Your task to perform on an android device: open app "Speedtest by Ookla" (install if not already installed) and enter user name: "hyena@outlook.com" and password: "terminators" Image 0: 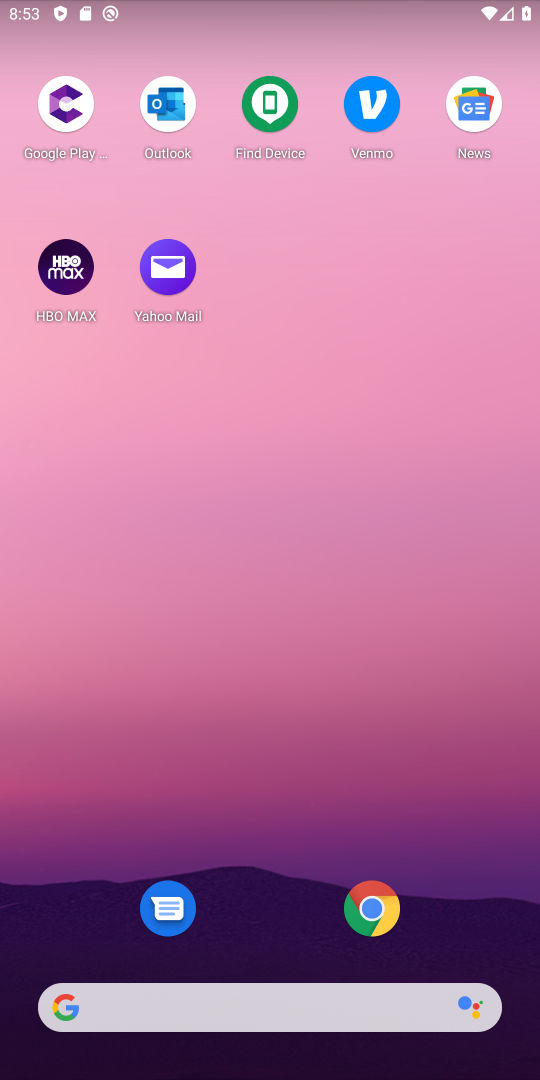
Step 0: drag from (204, 701) to (491, 29)
Your task to perform on an android device: open app "Speedtest by Ookla" (install if not already installed) and enter user name: "hyena@outlook.com" and password: "terminators" Image 1: 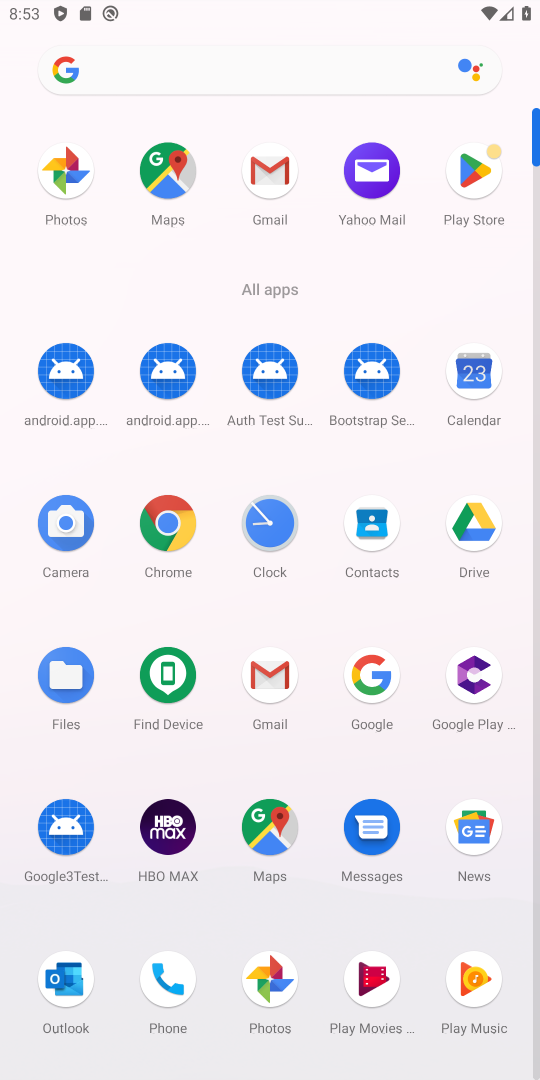
Step 1: click (472, 187)
Your task to perform on an android device: open app "Speedtest by Ookla" (install if not already installed) and enter user name: "hyena@outlook.com" and password: "terminators" Image 2: 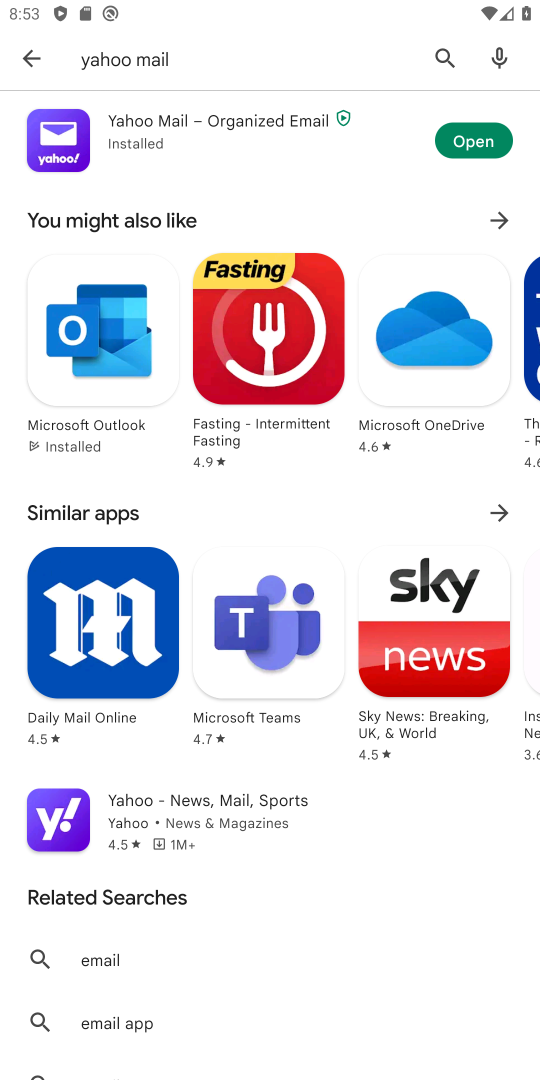
Step 2: click (274, 49)
Your task to perform on an android device: open app "Speedtest by Ookla" (install if not already installed) and enter user name: "hyena@outlook.com" and password: "terminators" Image 3: 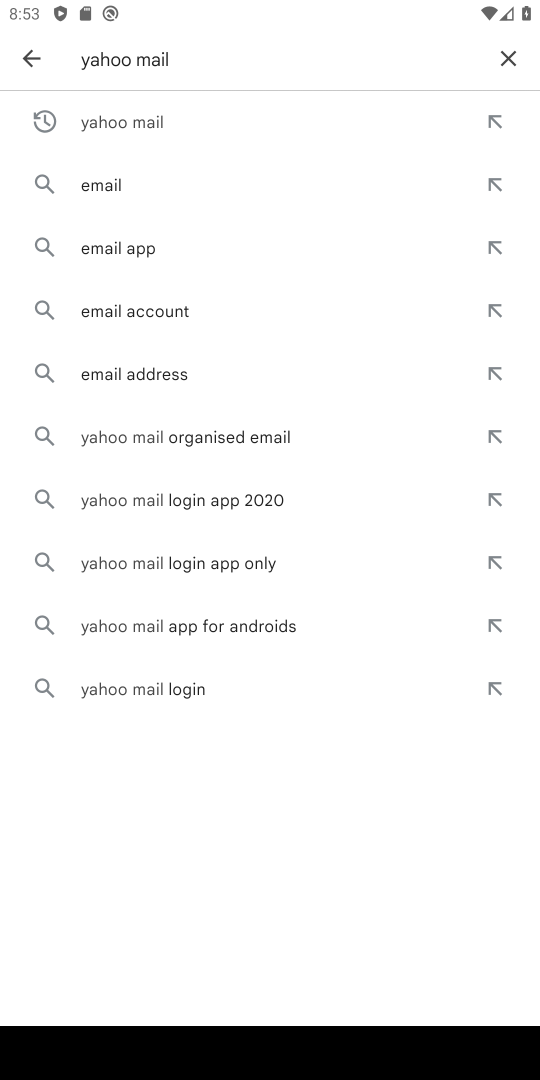
Step 3: click (499, 41)
Your task to perform on an android device: open app "Speedtest by Ookla" (install if not already installed) and enter user name: "hyena@outlook.com" and password: "terminators" Image 4: 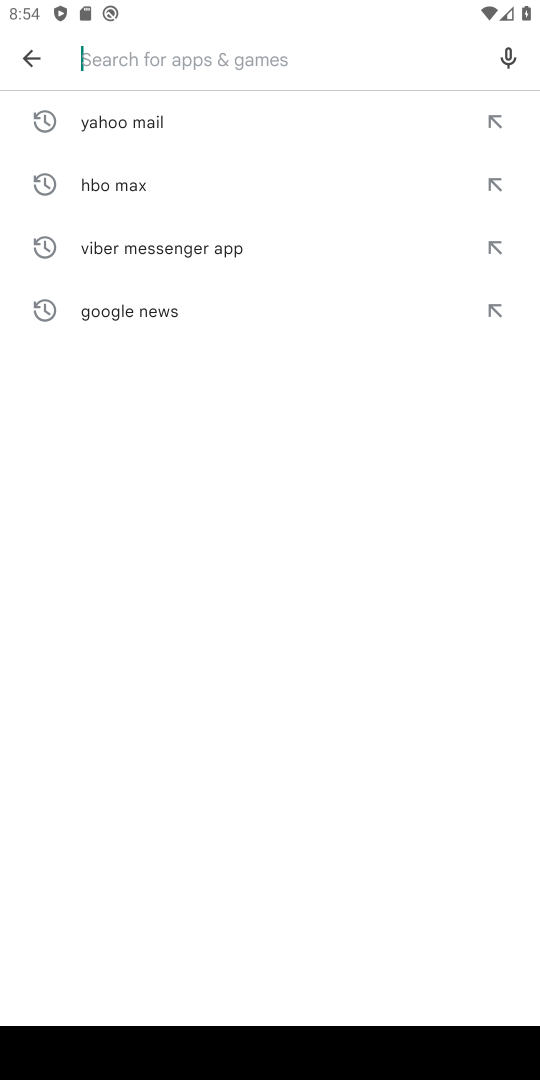
Step 4: type "speed resr by Ool;a"
Your task to perform on an android device: open app "Speedtest by Ookla" (install if not already installed) and enter user name: "hyena@outlook.com" and password: "terminators" Image 5: 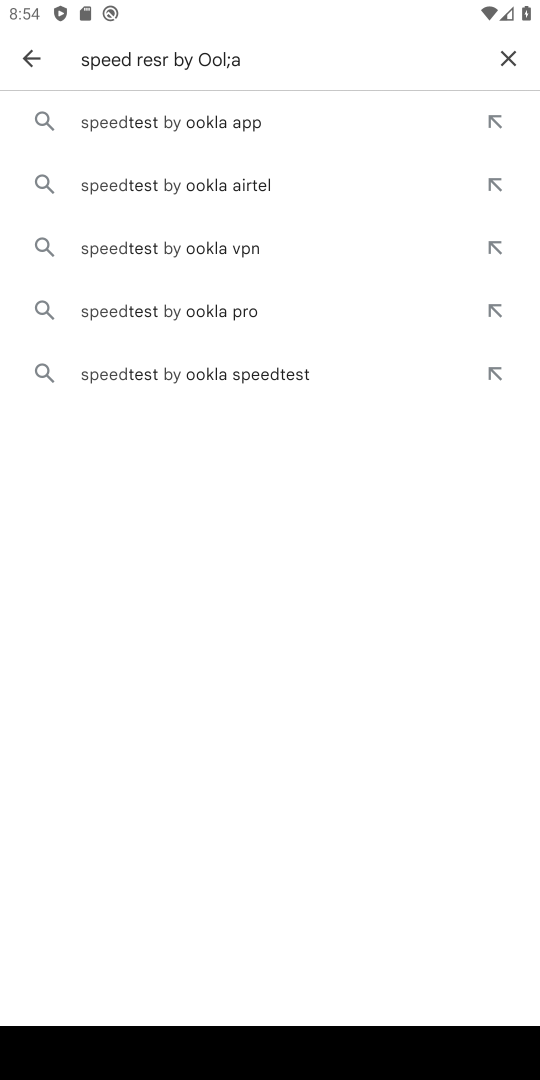
Step 5: click (160, 123)
Your task to perform on an android device: open app "Speedtest by Ookla" (install if not already installed) and enter user name: "hyena@outlook.com" and password: "terminators" Image 6: 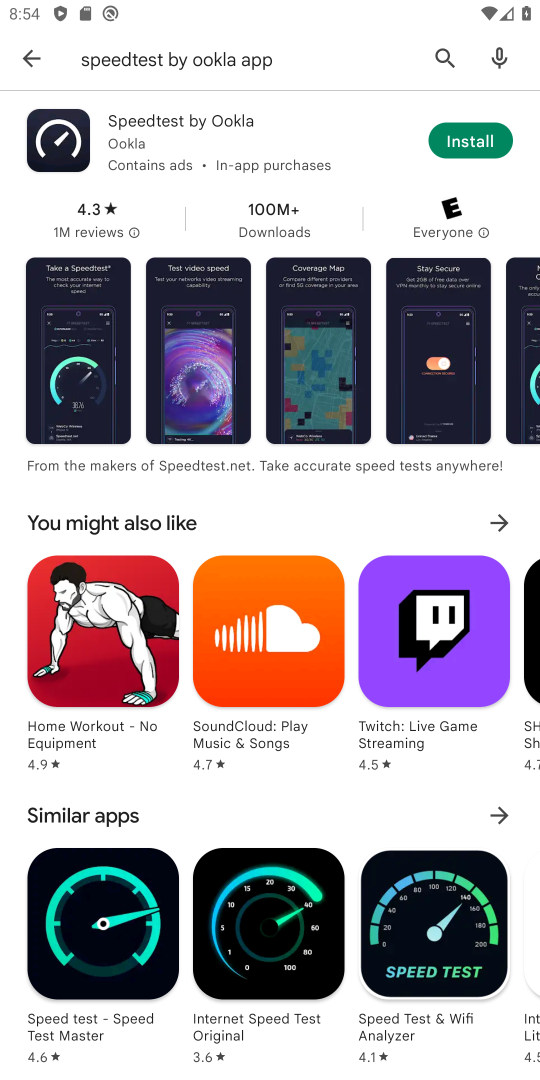
Step 6: click (464, 145)
Your task to perform on an android device: open app "Speedtest by Ookla" (install if not already installed) and enter user name: "hyena@outlook.com" and password: "terminators" Image 7: 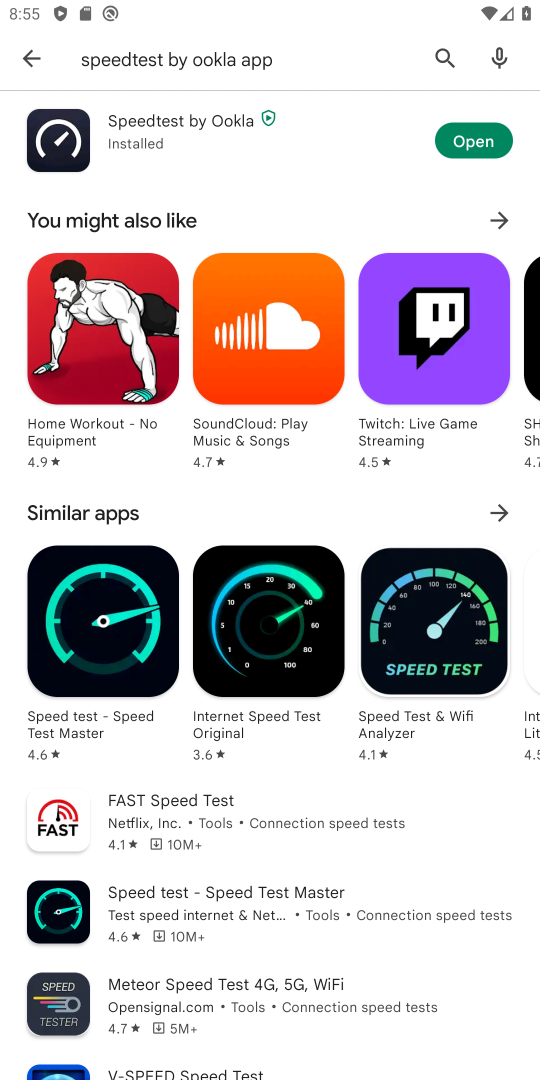
Step 7: click (479, 128)
Your task to perform on an android device: open app "Speedtest by Ookla" (install if not already installed) and enter user name: "hyena@outlook.com" and password: "terminators" Image 8: 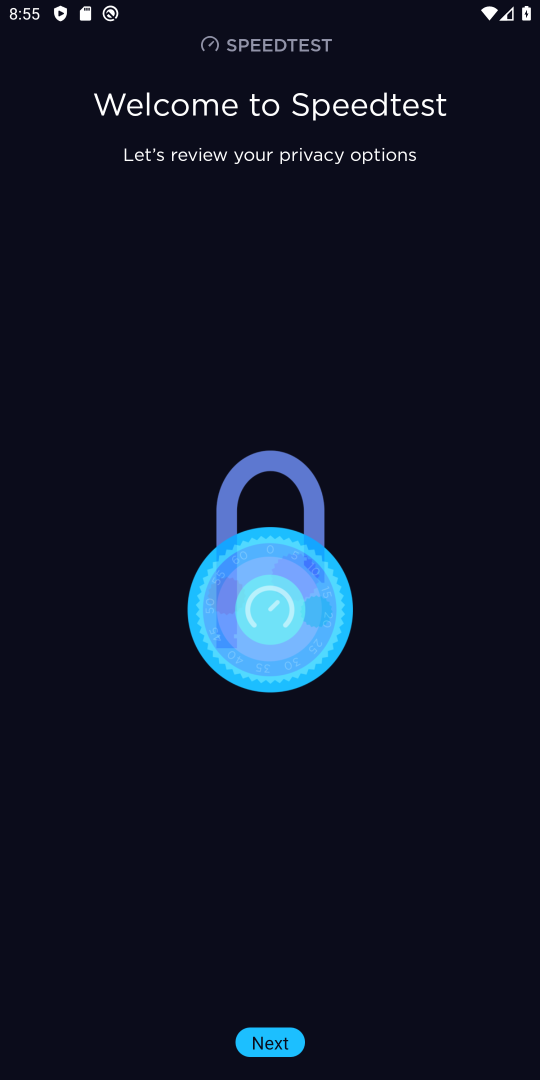
Step 8: click (270, 1046)
Your task to perform on an android device: open app "Speedtest by Ookla" (install if not already installed) and enter user name: "hyena@outlook.com" and password: "terminators" Image 9: 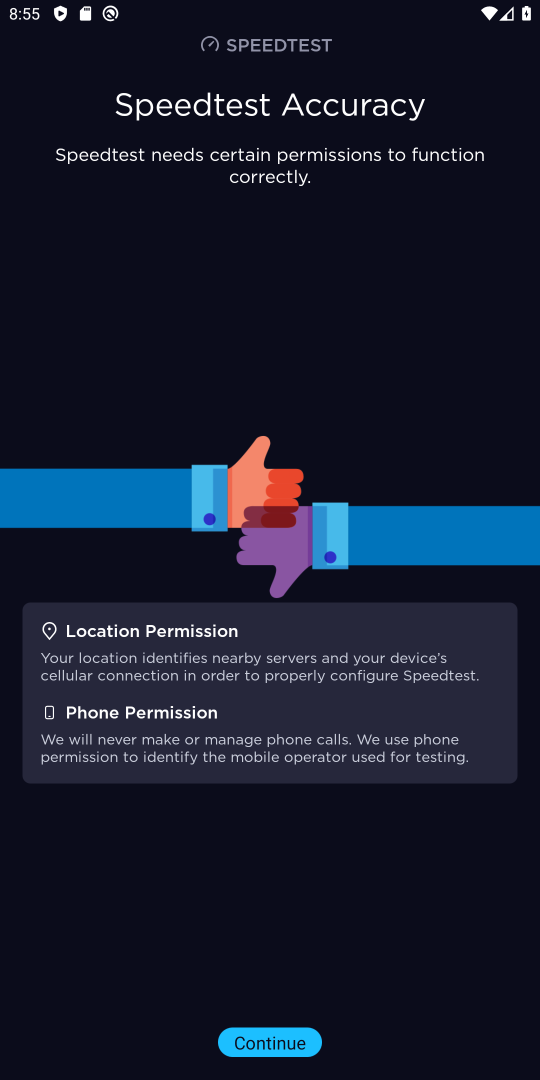
Step 9: click (270, 1046)
Your task to perform on an android device: open app "Speedtest by Ookla" (install if not already installed) and enter user name: "hyena@outlook.com" and password: "terminators" Image 10: 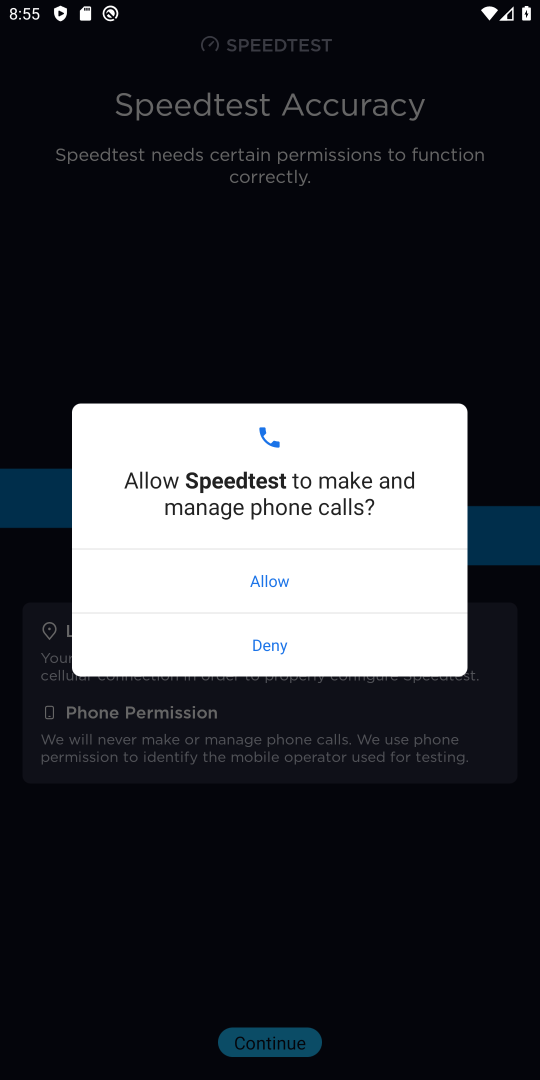
Step 10: click (280, 583)
Your task to perform on an android device: open app "Speedtest by Ookla" (install if not already installed) and enter user name: "hyena@outlook.com" and password: "terminators" Image 11: 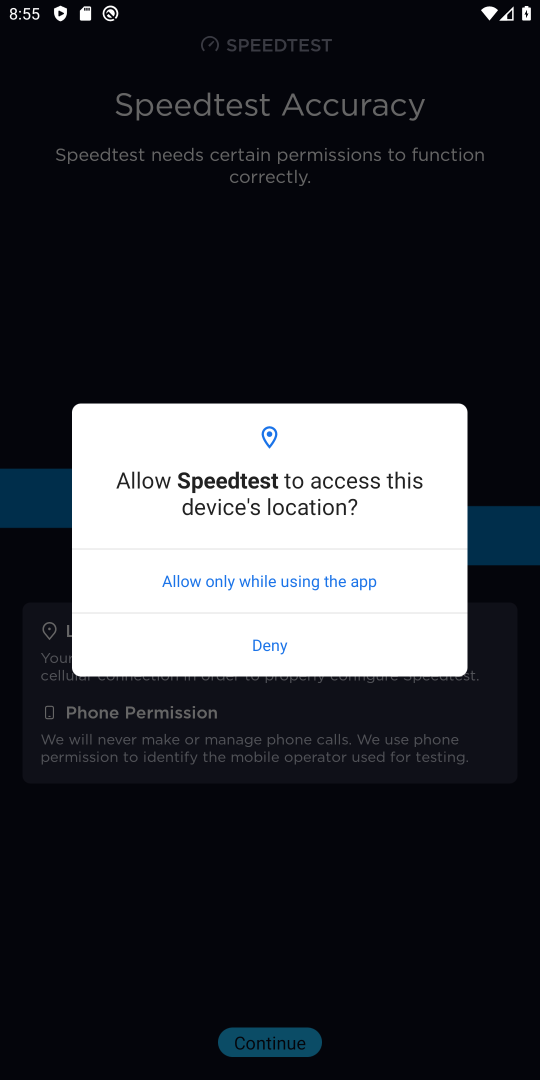
Step 11: click (280, 583)
Your task to perform on an android device: open app "Speedtest by Ookla" (install if not already installed) and enter user name: "hyena@outlook.com" and password: "terminators" Image 12: 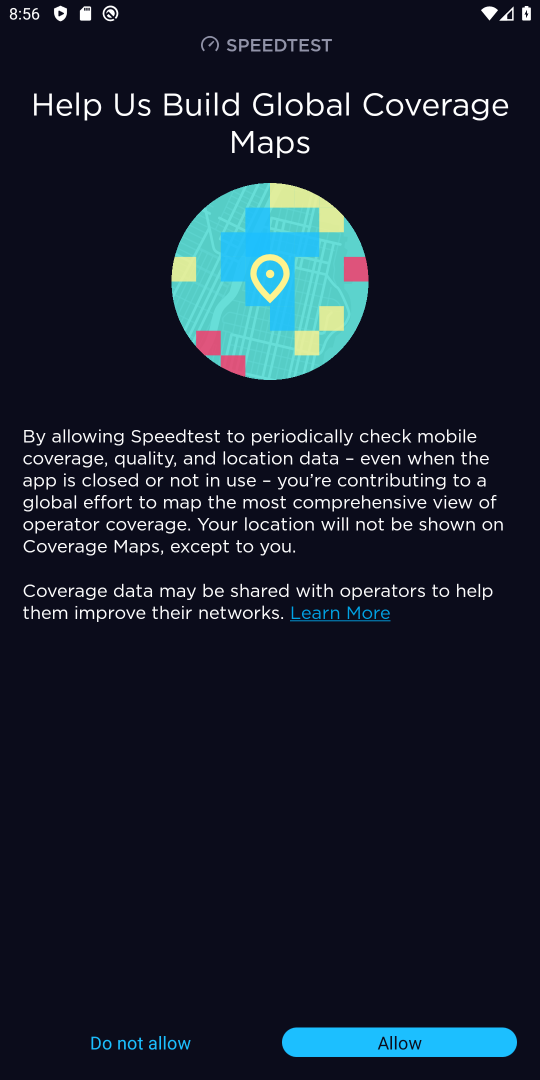
Step 12: click (316, 1046)
Your task to perform on an android device: open app "Speedtest by Ookla" (install if not already installed) and enter user name: "hyena@outlook.com" and password: "terminators" Image 13: 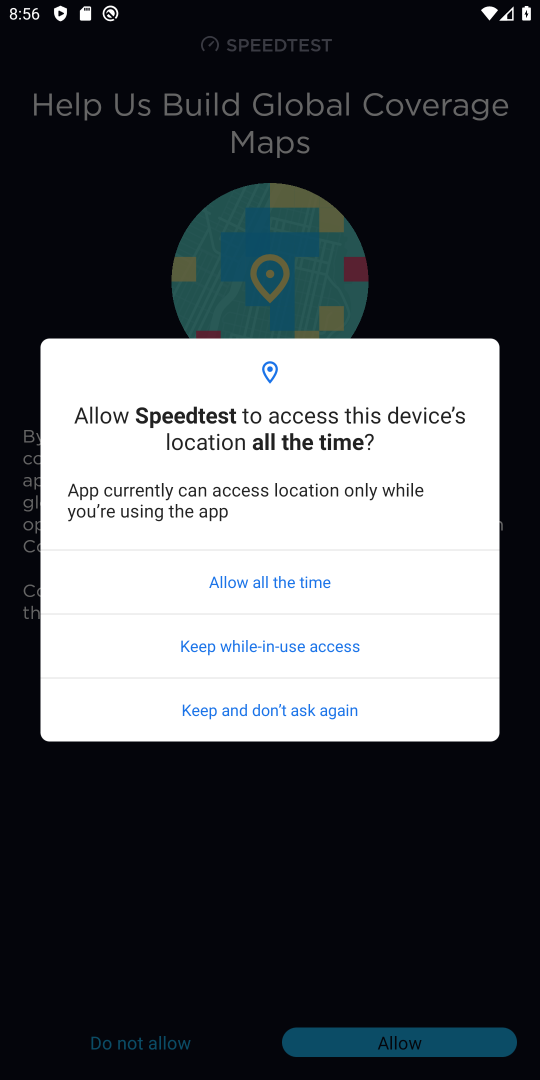
Step 13: click (314, 572)
Your task to perform on an android device: open app "Speedtest by Ookla" (install if not already installed) and enter user name: "hyena@outlook.com" and password: "terminators" Image 14: 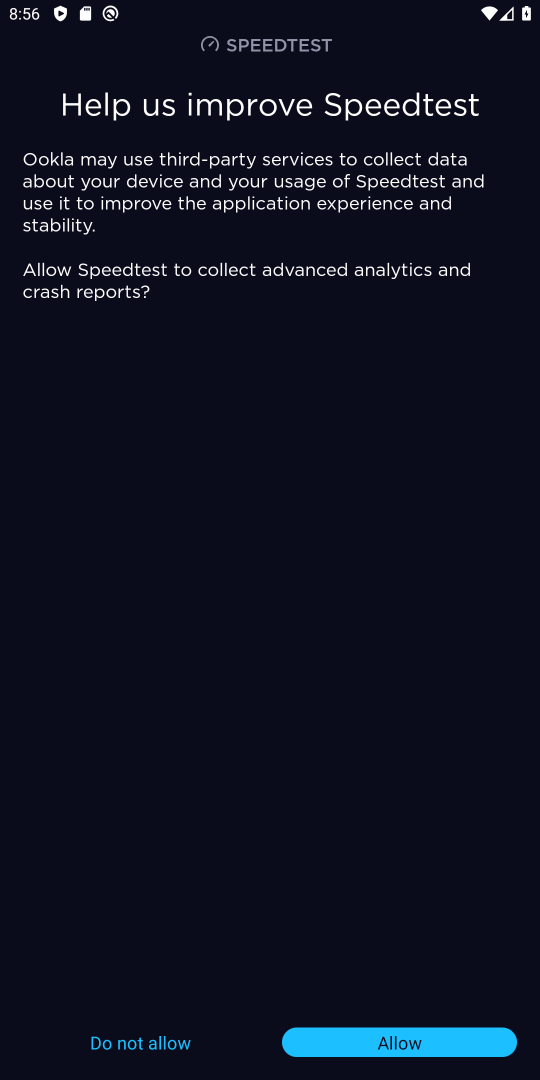
Step 14: click (464, 1045)
Your task to perform on an android device: open app "Speedtest by Ookla" (install if not already installed) and enter user name: "hyena@outlook.com" and password: "terminators" Image 15: 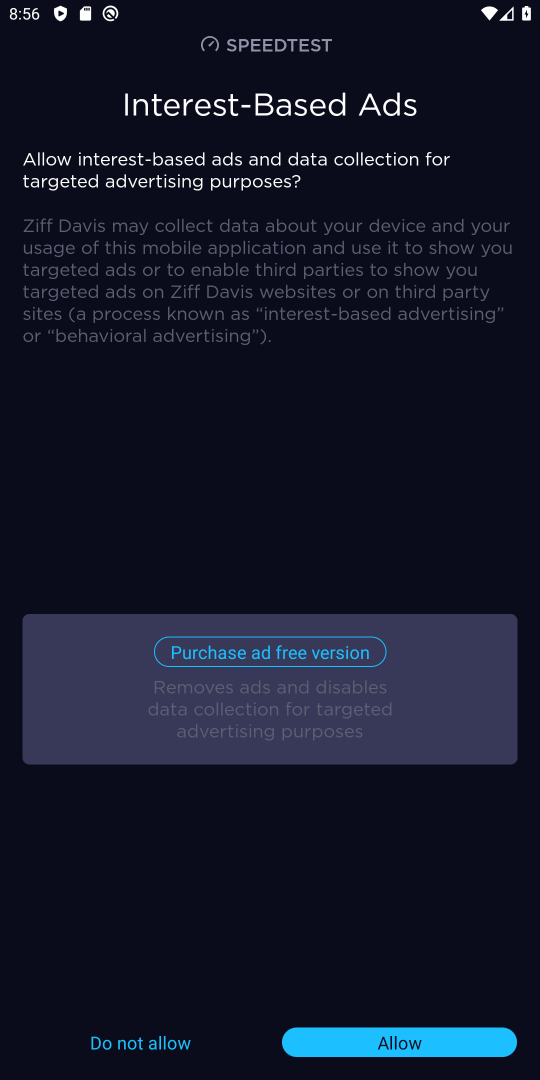
Step 15: click (447, 1033)
Your task to perform on an android device: open app "Speedtest by Ookla" (install if not already installed) and enter user name: "hyena@outlook.com" and password: "terminators" Image 16: 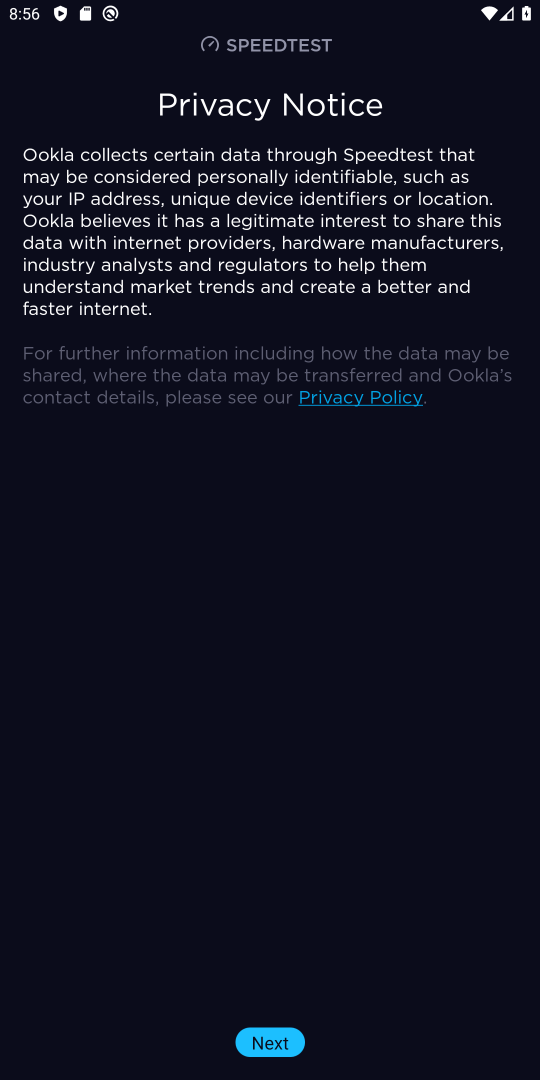
Step 16: click (282, 1031)
Your task to perform on an android device: open app "Speedtest by Ookla" (install if not already installed) and enter user name: "hyena@outlook.com" and password: "terminators" Image 17: 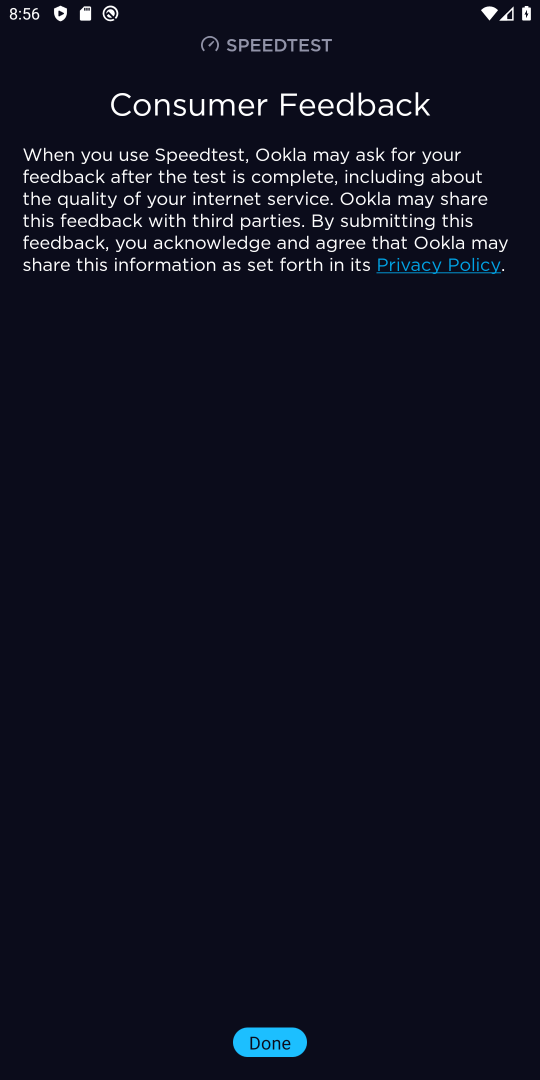
Step 17: click (275, 1032)
Your task to perform on an android device: open app "Speedtest by Ookla" (install if not already installed) and enter user name: "hyena@outlook.com" and password: "terminators" Image 18: 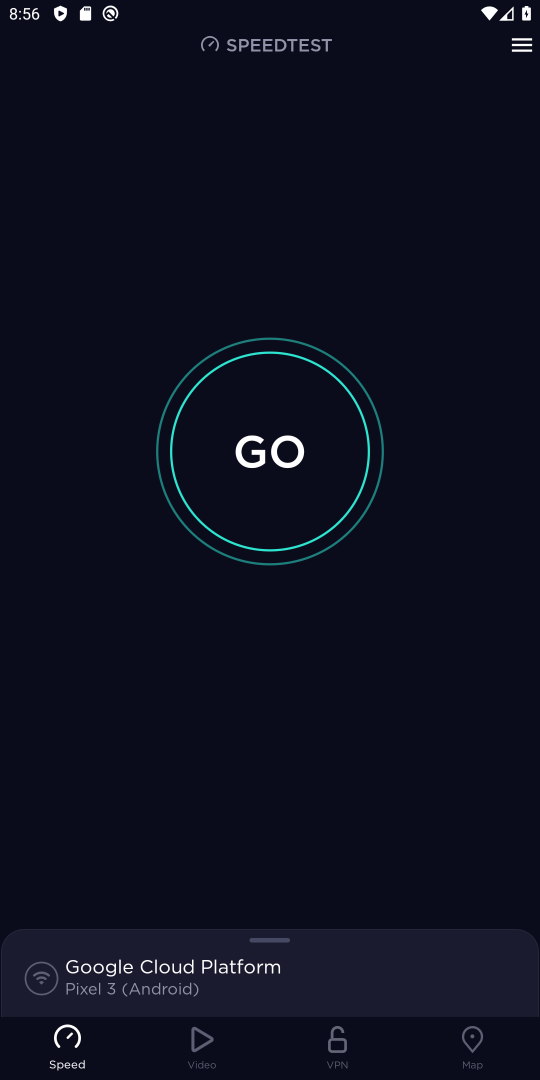
Step 18: click (519, 35)
Your task to perform on an android device: open app "Speedtest by Ookla" (install if not already installed) and enter user name: "hyena@outlook.com" and password: "terminators" Image 19: 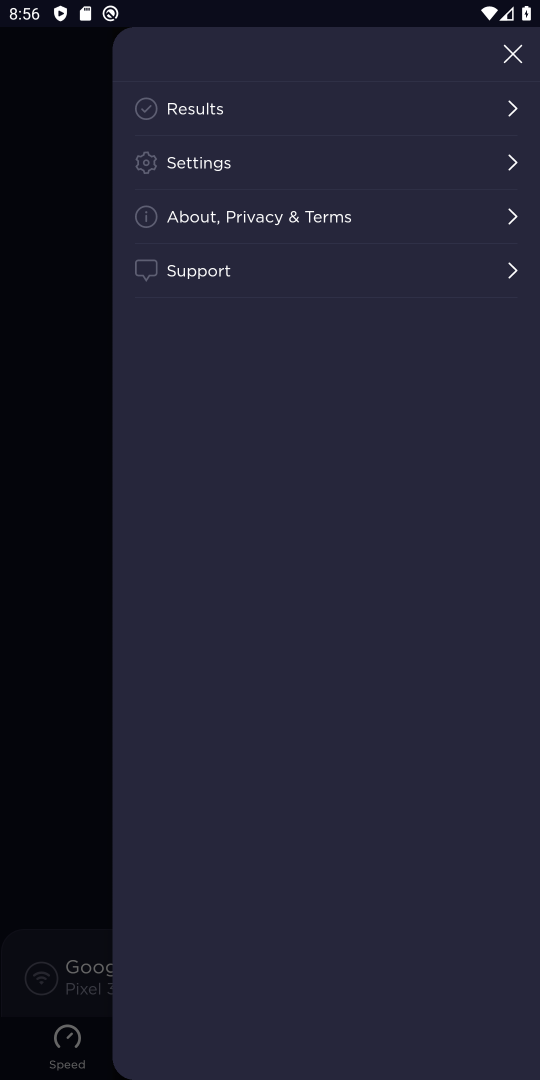
Step 19: click (207, 162)
Your task to perform on an android device: open app "Speedtest by Ookla" (install if not already installed) and enter user name: "hyena@outlook.com" and password: "terminators" Image 20: 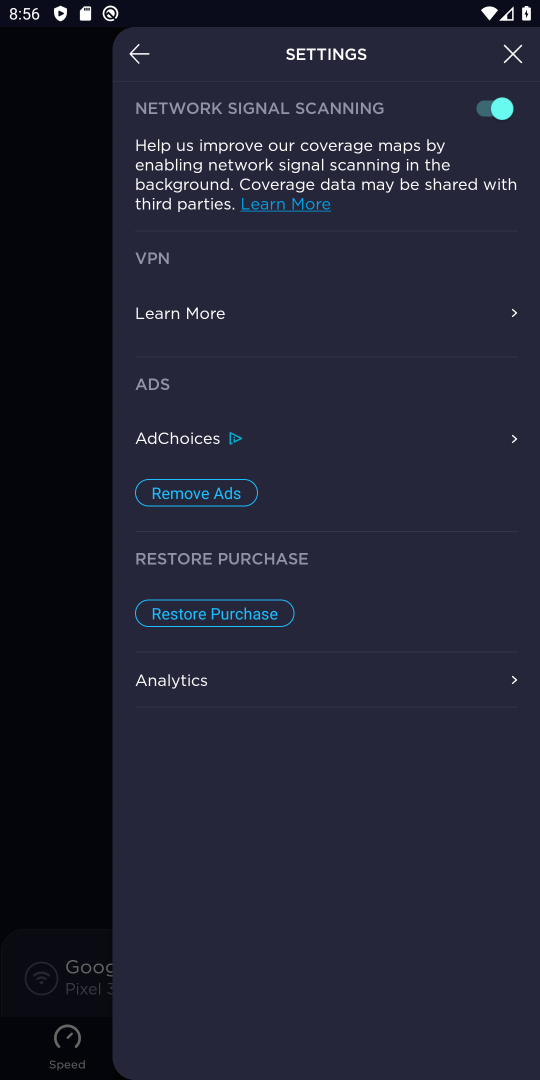
Step 20: task complete